Your task to perform on an android device: What's on my calendar tomorrow? Image 0: 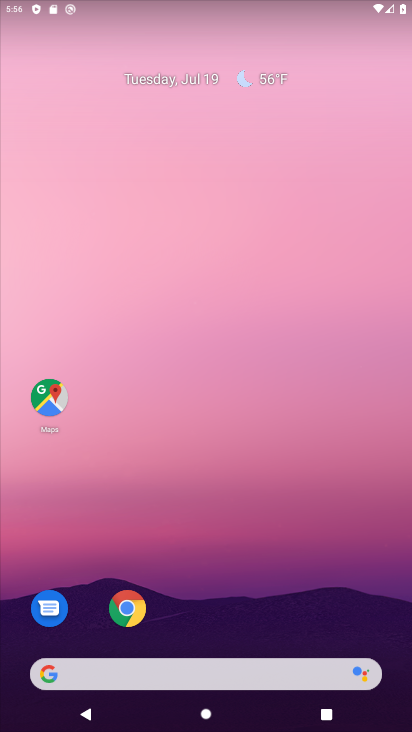
Step 0: drag from (211, 609) to (230, 18)
Your task to perform on an android device: What's on my calendar tomorrow? Image 1: 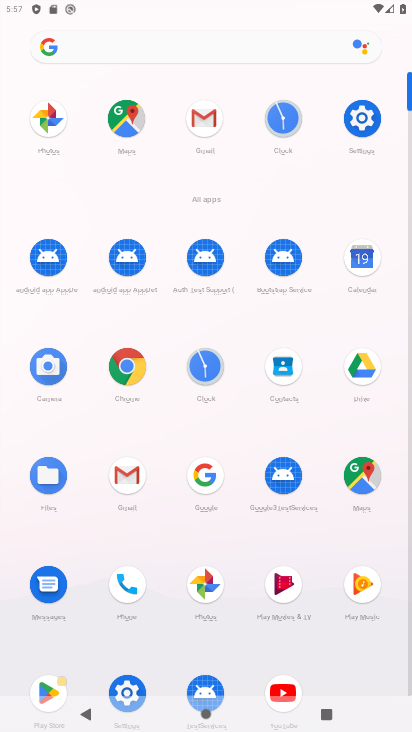
Step 1: click (356, 255)
Your task to perform on an android device: What's on my calendar tomorrow? Image 2: 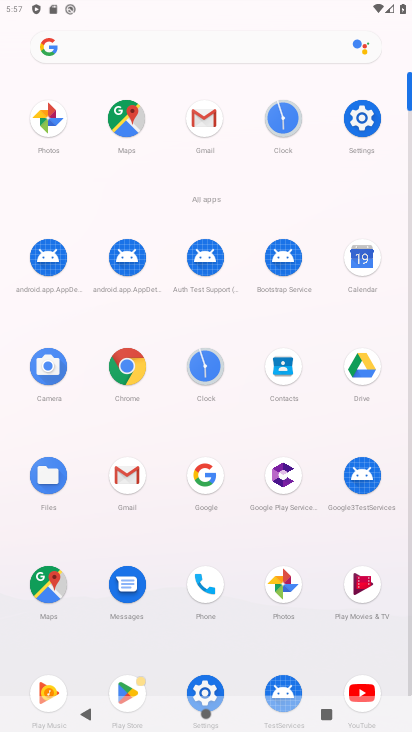
Step 2: click (359, 250)
Your task to perform on an android device: What's on my calendar tomorrow? Image 3: 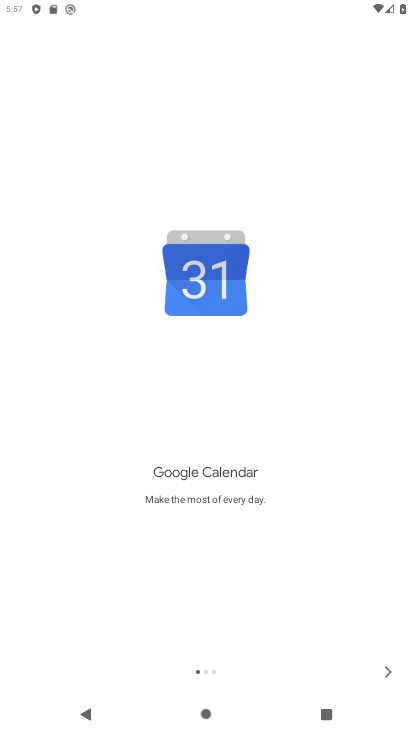
Step 3: click (389, 668)
Your task to perform on an android device: What's on my calendar tomorrow? Image 4: 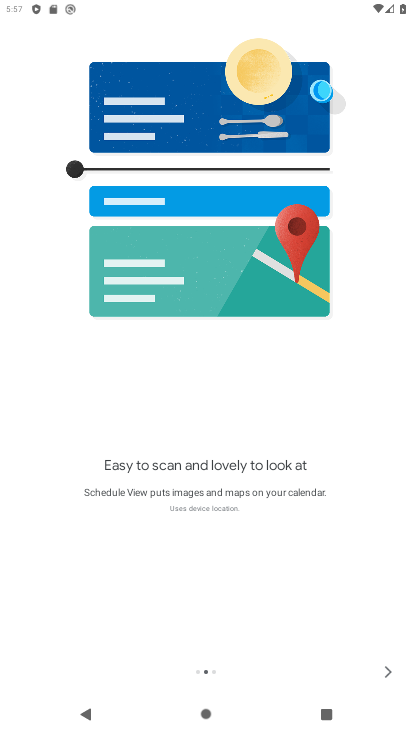
Step 4: click (388, 668)
Your task to perform on an android device: What's on my calendar tomorrow? Image 5: 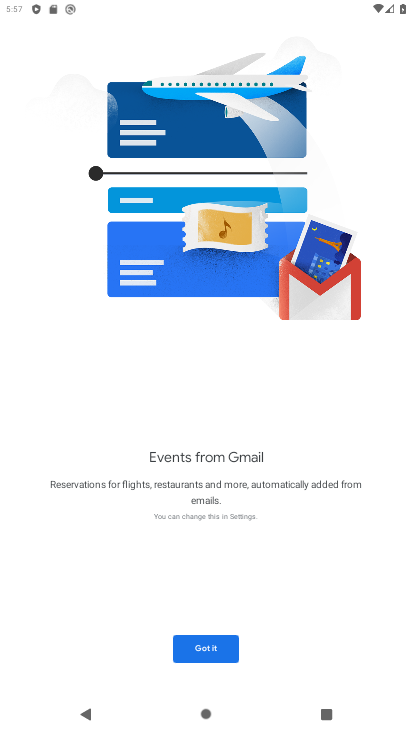
Step 5: click (202, 647)
Your task to perform on an android device: What's on my calendar tomorrow? Image 6: 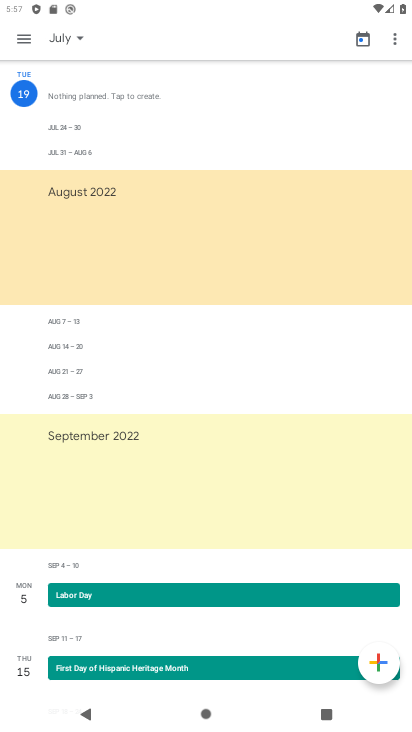
Step 6: click (25, 35)
Your task to perform on an android device: What's on my calendar tomorrow? Image 7: 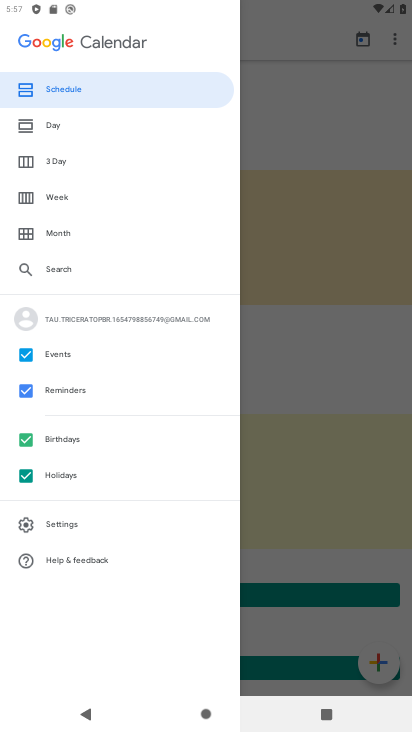
Step 7: click (62, 124)
Your task to perform on an android device: What's on my calendar tomorrow? Image 8: 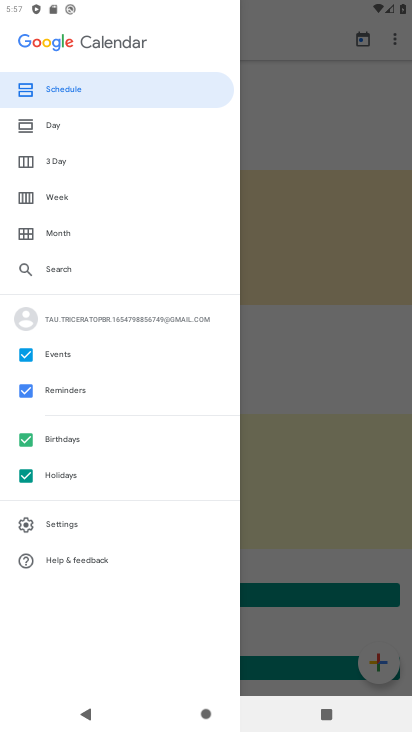
Step 8: click (66, 122)
Your task to perform on an android device: What's on my calendar tomorrow? Image 9: 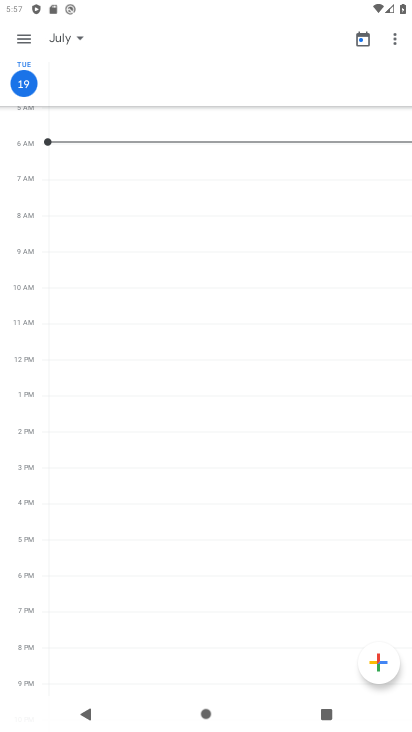
Step 9: click (80, 38)
Your task to perform on an android device: What's on my calendar tomorrow? Image 10: 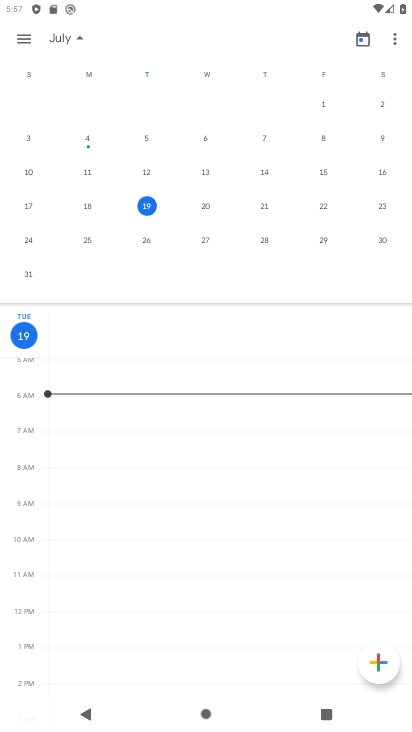
Step 10: click (201, 205)
Your task to perform on an android device: What's on my calendar tomorrow? Image 11: 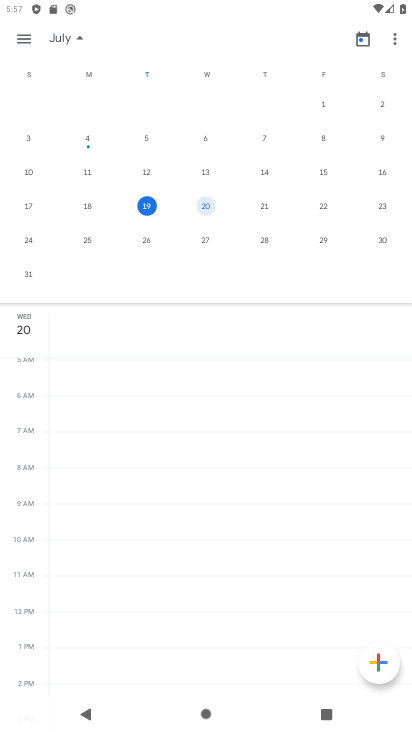
Step 11: click (76, 30)
Your task to perform on an android device: What's on my calendar tomorrow? Image 12: 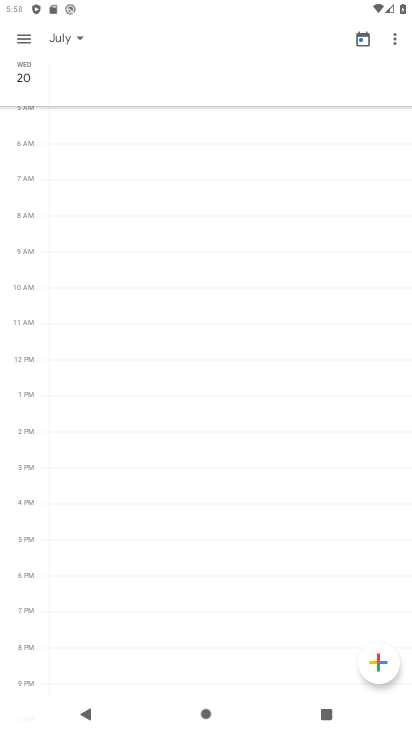
Step 12: task complete